Your task to perform on an android device: Show me the alarms in the clock app Image 0: 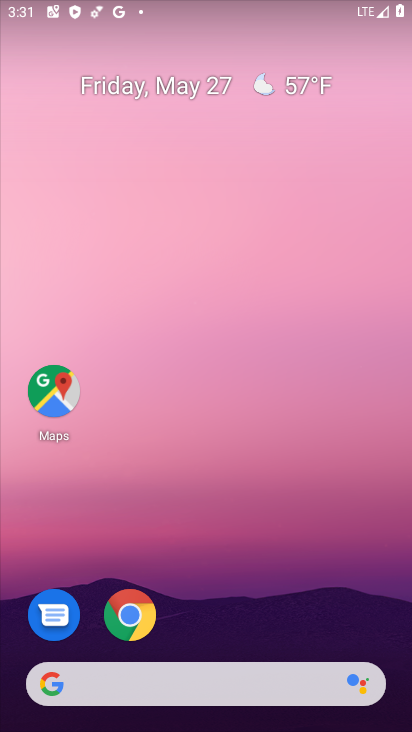
Step 0: drag from (206, 648) to (215, 234)
Your task to perform on an android device: Show me the alarms in the clock app Image 1: 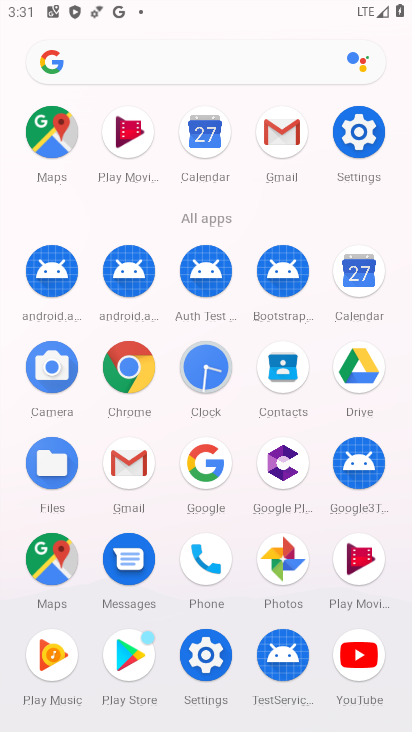
Step 1: click (194, 382)
Your task to perform on an android device: Show me the alarms in the clock app Image 2: 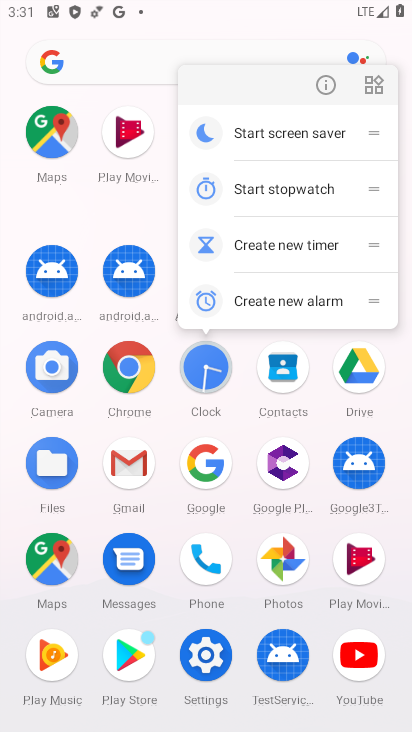
Step 2: click (224, 379)
Your task to perform on an android device: Show me the alarms in the clock app Image 3: 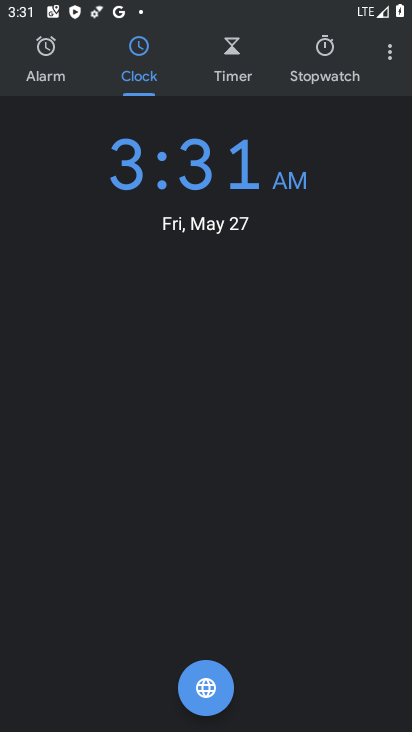
Step 3: click (47, 70)
Your task to perform on an android device: Show me the alarms in the clock app Image 4: 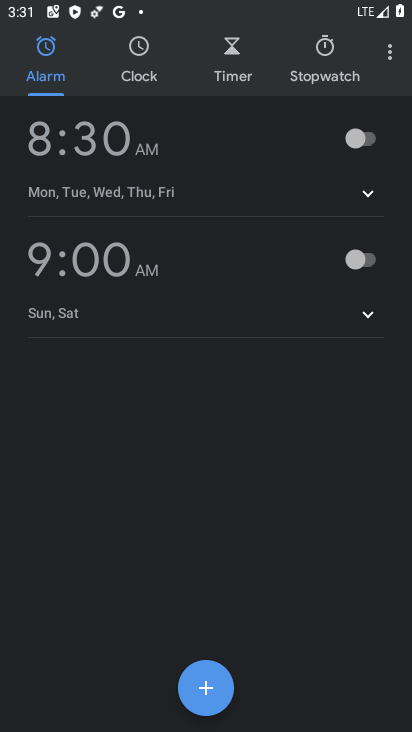
Step 4: task complete